Your task to perform on an android device: toggle location history Image 0: 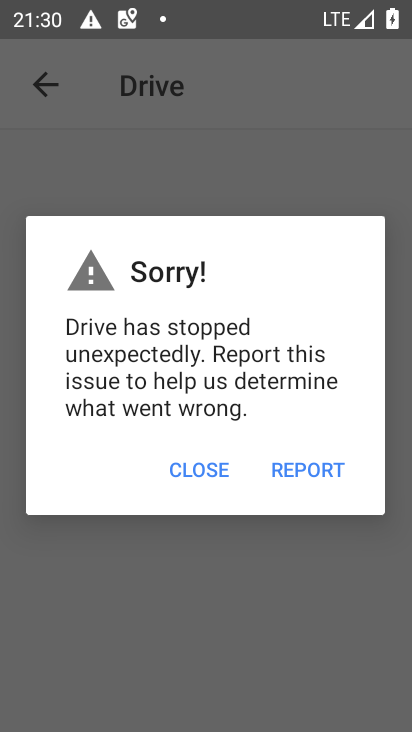
Step 0: press back button
Your task to perform on an android device: toggle location history Image 1: 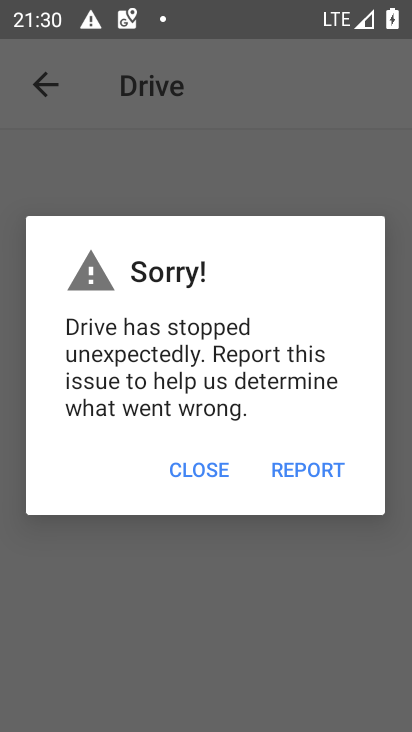
Step 1: press back button
Your task to perform on an android device: toggle location history Image 2: 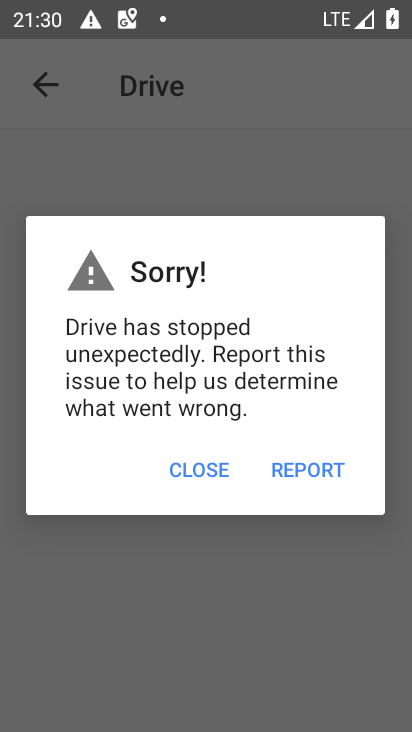
Step 2: press back button
Your task to perform on an android device: toggle location history Image 3: 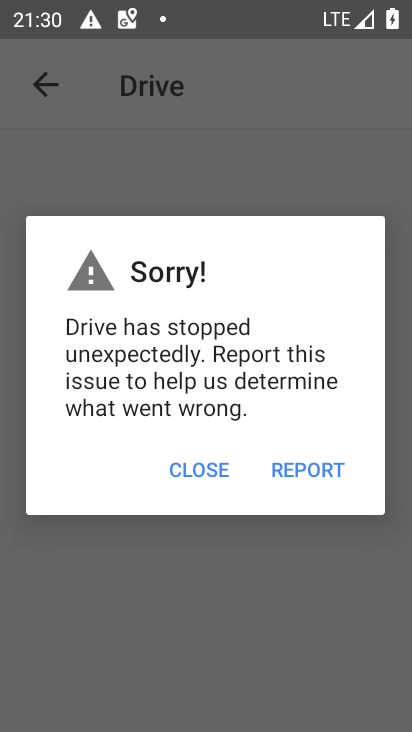
Step 3: press home button
Your task to perform on an android device: toggle location history Image 4: 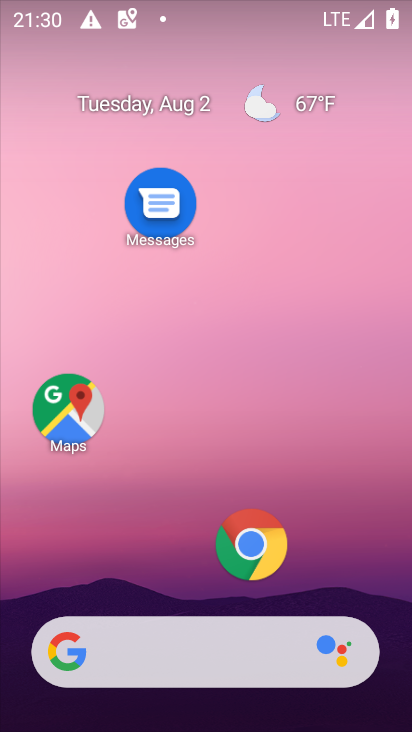
Step 4: drag from (181, 573) to (222, 198)
Your task to perform on an android device: toggle location history Image 5: 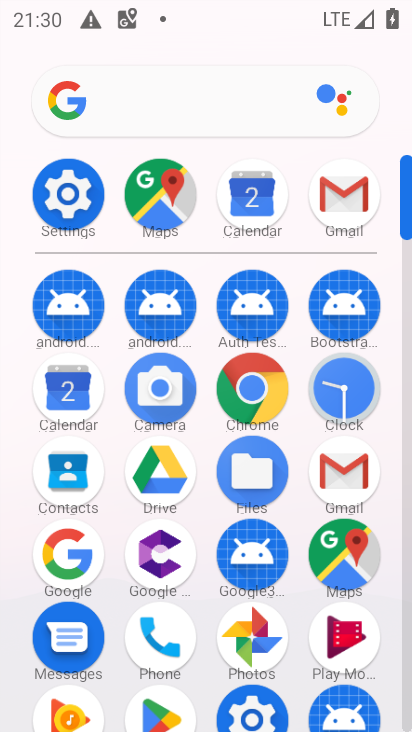
Step 5: click (89, 202)
Your task to perform on an android device: toggle location history Image 6: 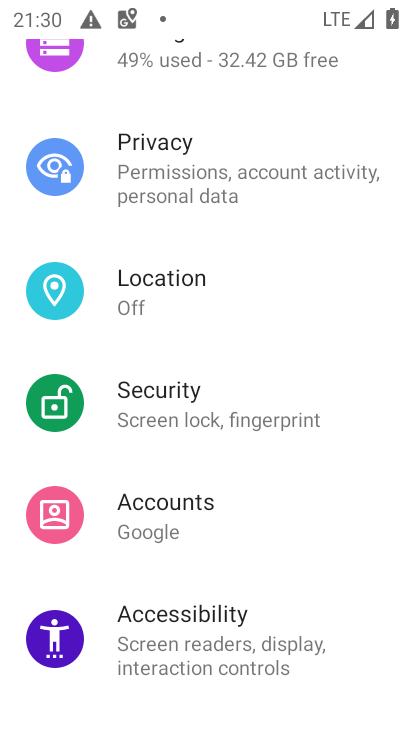
Step 6: click (190, 311)
Your task to perform on an android device: toggle location history Image 7: 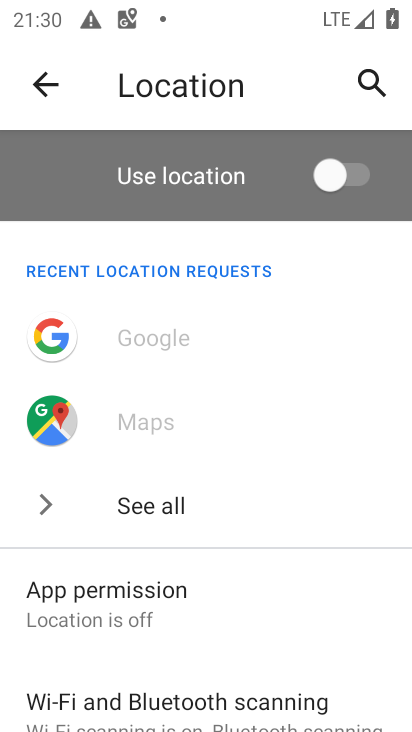
Step 7: drag from (200, 637) to (220, 263)
Your task to perform on an android device: toggle location history Image 8: 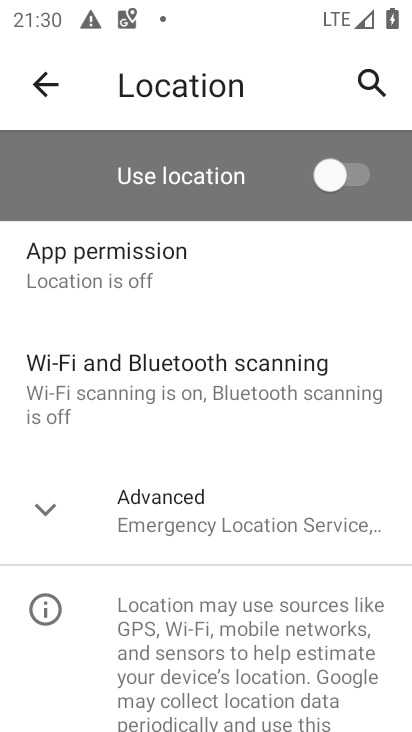
Step 8: click (183, 495)
Your task to perform on an android device: toggle location history Image 9: 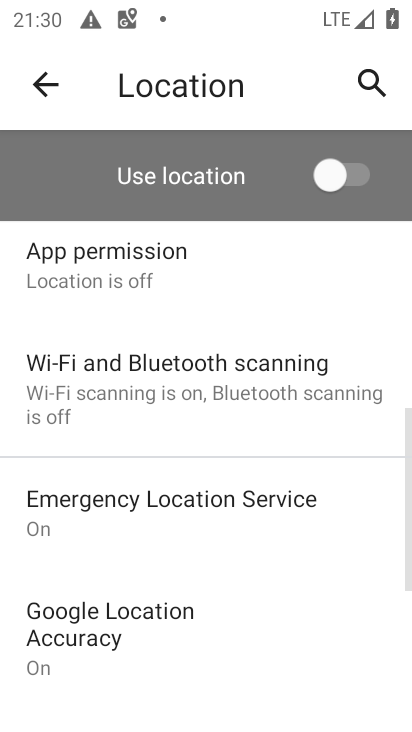
Step 9: drag from (235, 651) to (249, 302)
Your task to perform on an android device: toggle location history Image 10: 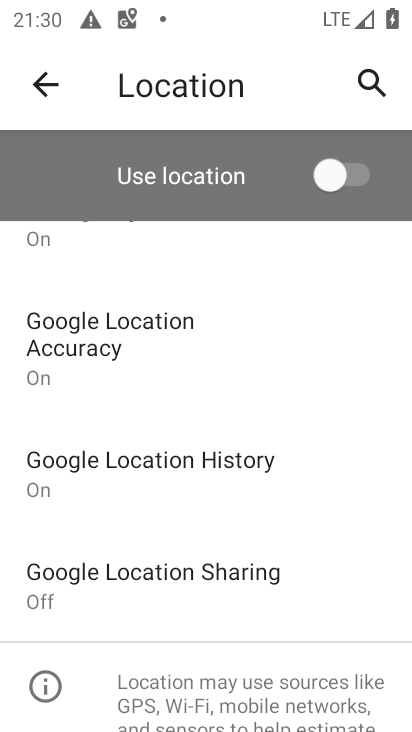
Step 10: click (224, 448)
Your task to perform on an android device: toggle location history Image 11: 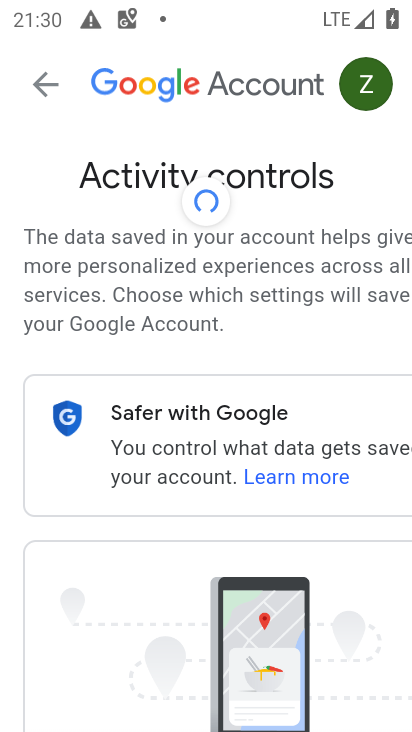
Step 11: drag from (147, 630) to (215, 203)
Your task to perform on an android device: toggle location history Image 12: 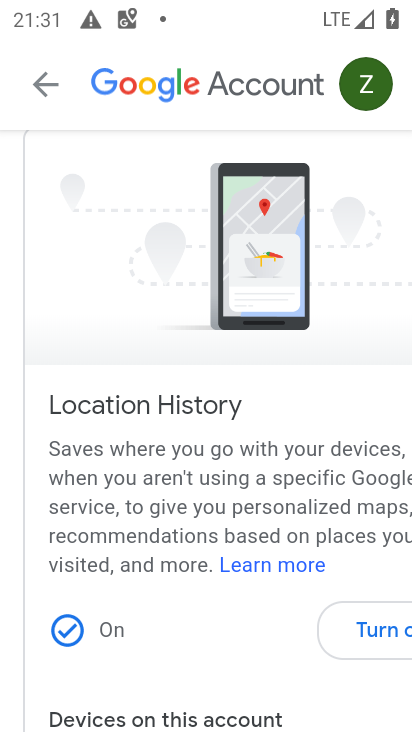
Step 12: click (353, 628)
Your task to perform on an android device: toggle location history Image 13: 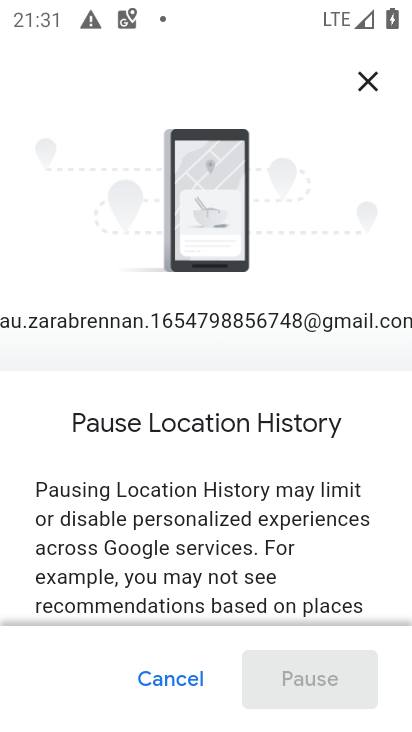
Step 13: drag from (265, 588) to (249, 136)
Your task to perform on an android device: toggle location history Image 14: 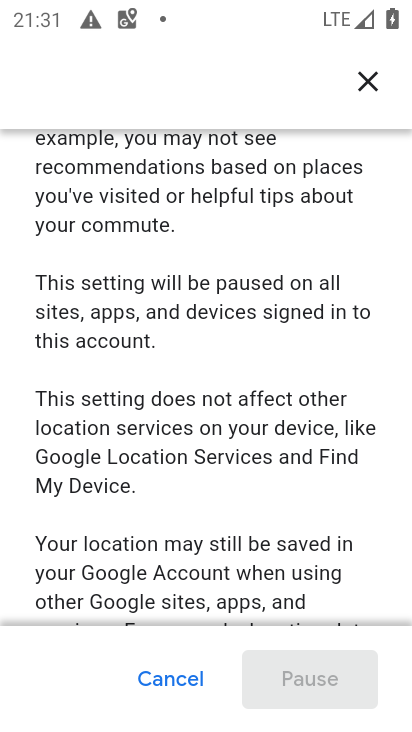
Step 14: drag from (236, 391) to (236, 185)
Your task to perform on an android device: toggle location history Image 15: 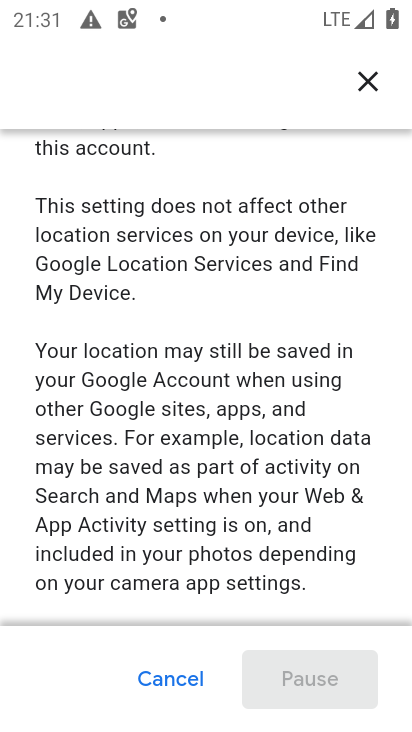
Step 15: drag from (272, 549) to (267, 240)
Your task to perform on an android device: toggle location history Image 16: 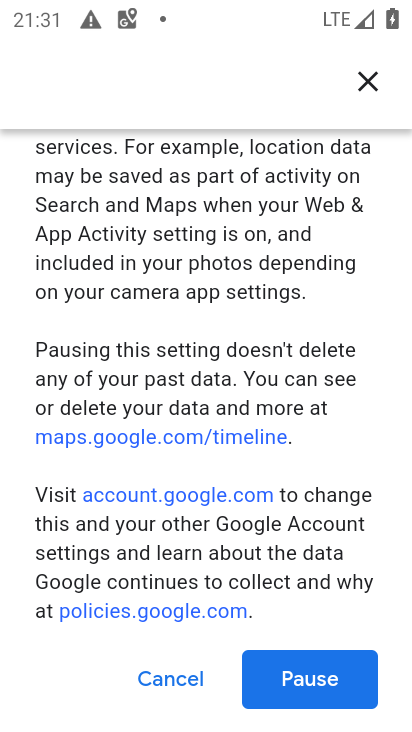
Step 16: click (276, 652)
Your task to perform on an android device: toggle location history Image 17: 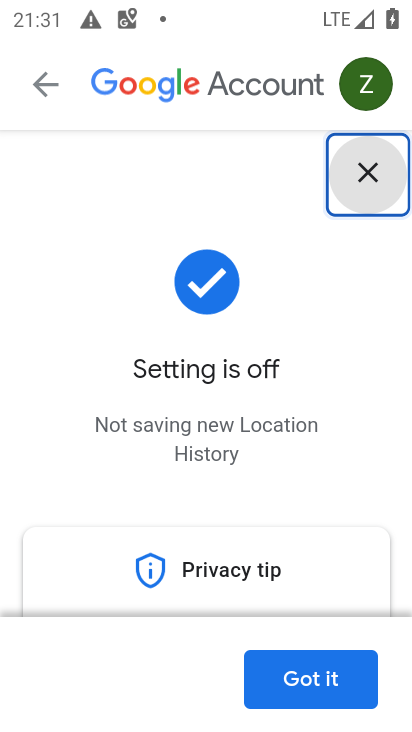
Step 17: task complete